Your task to perform on an android device: clear all cookies in the chrome app Image 0: 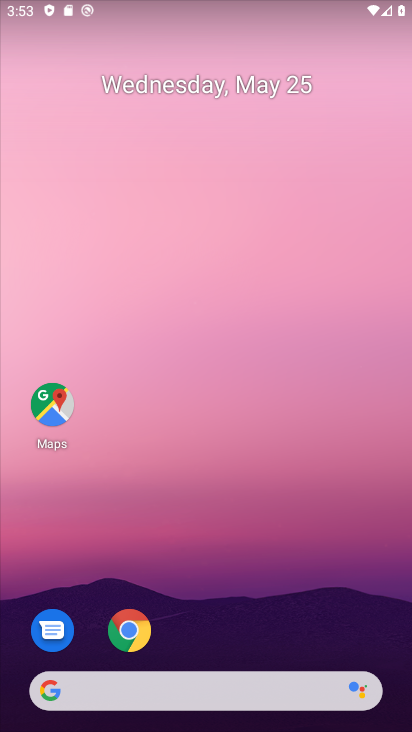
Step 0: drag from (296, 717) to (149, 134)
Your task to perform on an android device: clear all cookies in the chrome app Image 1: 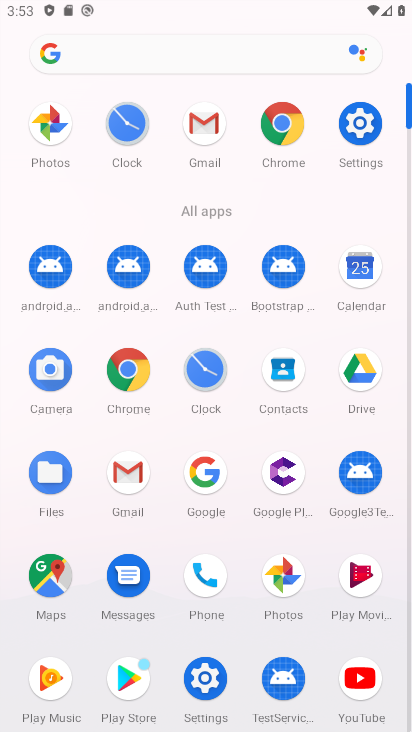
Step 1: click (270, 116)
Your task to perform on an android device: clear all cookies in the chrome app Image 2: 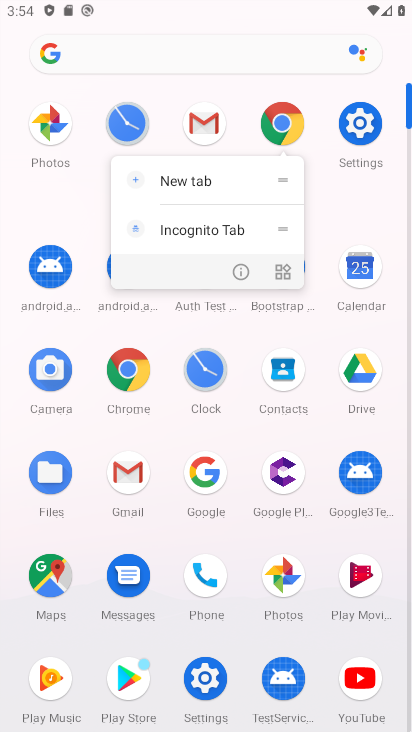
Step 2: click (272, 111)
Your task to perform on an android device: clear all cookies in the chrome app Image 3: 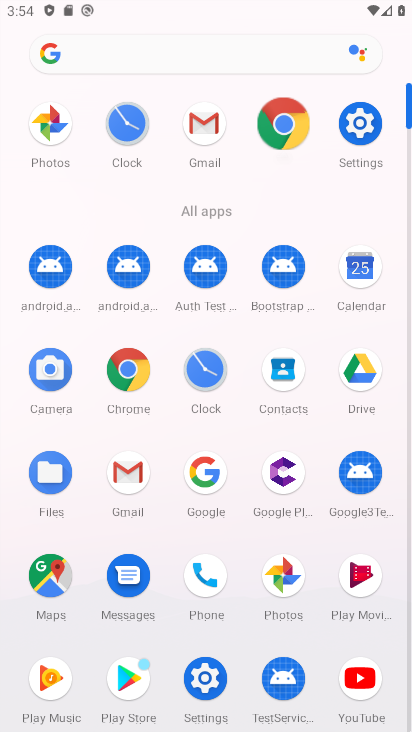
Step 3: click (272, 111)
Your task to perform on an android device: clear all cookies in the chrome app Image 4: 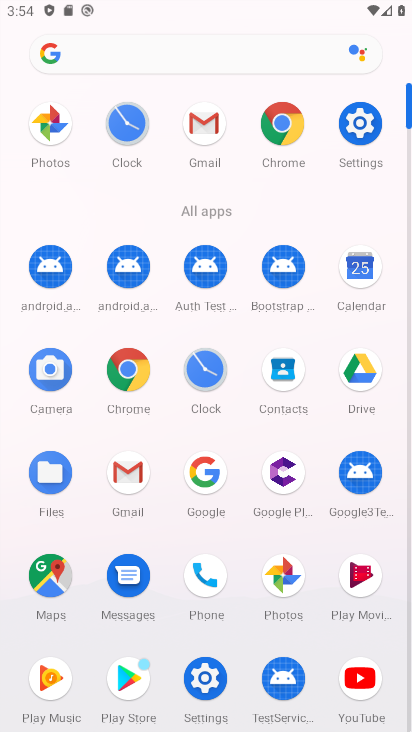
Step 4: click (272, 111)
Your task to perform on an android device: clear all cookies in the chrome app Image 5: 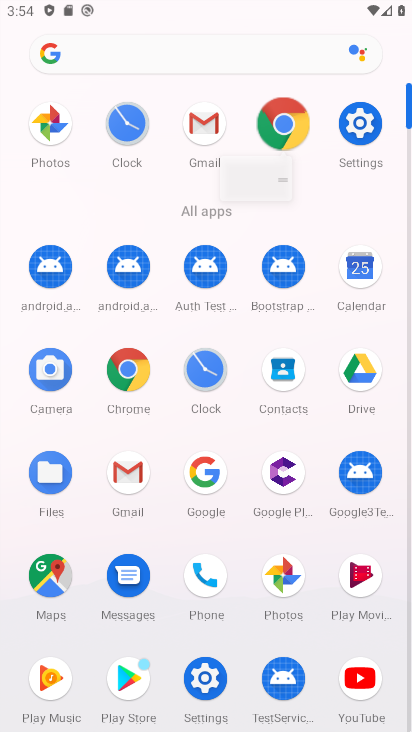
Step 5: click (273, 114)
Your task to perform on an android device: clear all cookies in the chrome app Image 6: 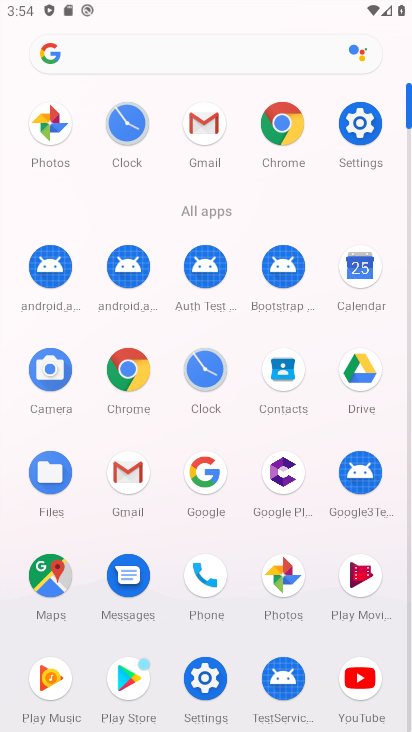
Step 6: click (276, 116)
Your task to perform on an android device: clear all cookies in the chrome app Image 7: 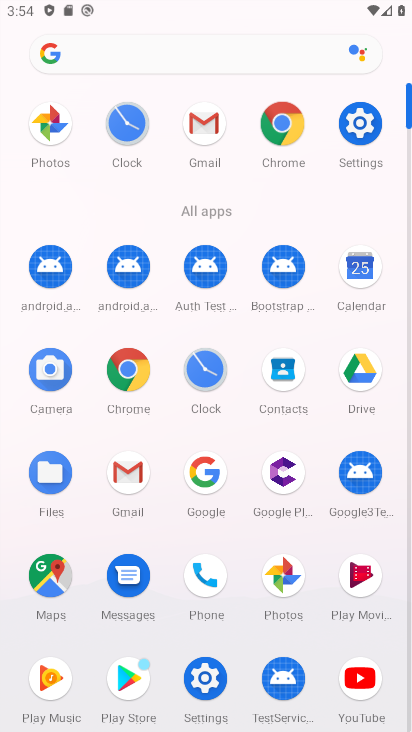
Step 7: click (277, 117)
Your task to perform on an android device: clear all cookies in the chrome app Image 8: 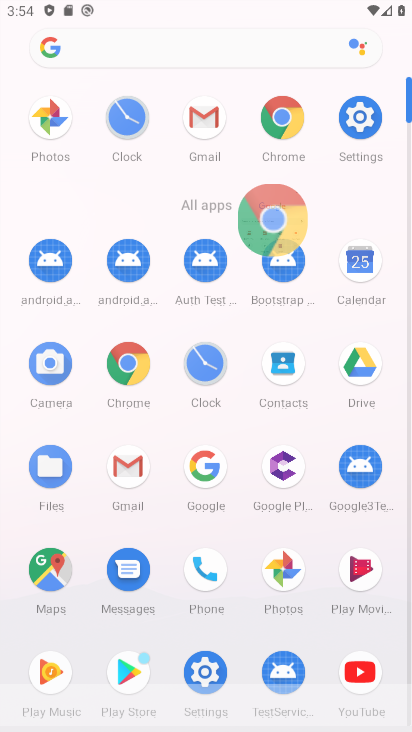
Step 8: click (277, 119)
Your task to perform on an android device: clear all cookies in the chrome app Image 9: 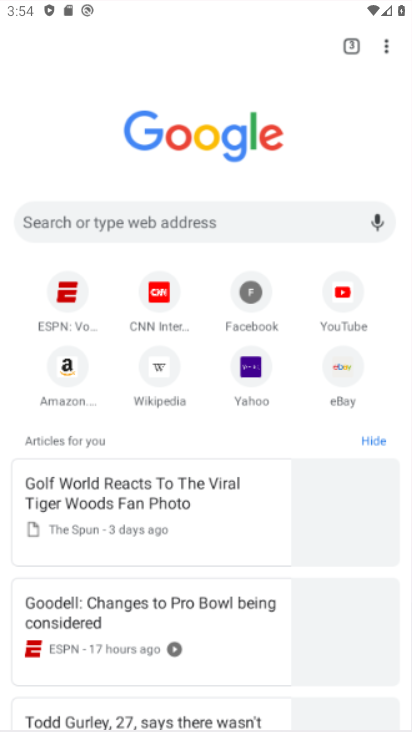
Step 9: click (277, 123)
Your task to perform on an android device: clear all cookies in the chrome app Image 10: 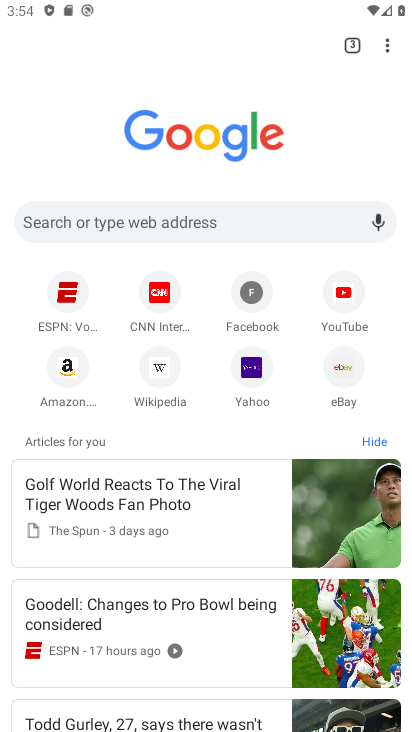
Step 10: press back button
Your task to perform on an android device: clear all cookies in the chrome app Image 11: 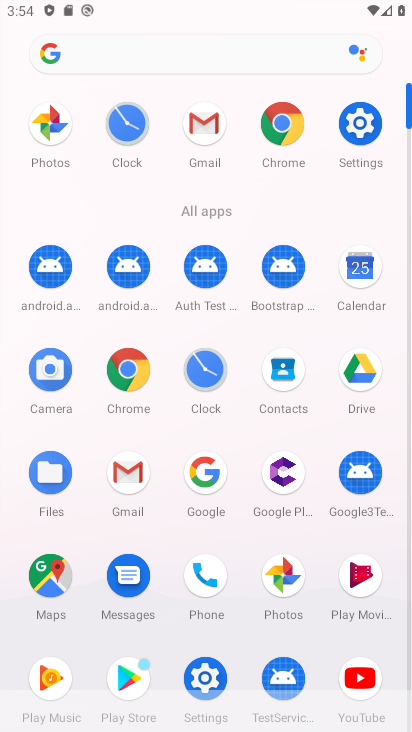
Step 11: click (276, 131)
Your task to perform on an android device: clear all cookies in the chrome app Image 12: 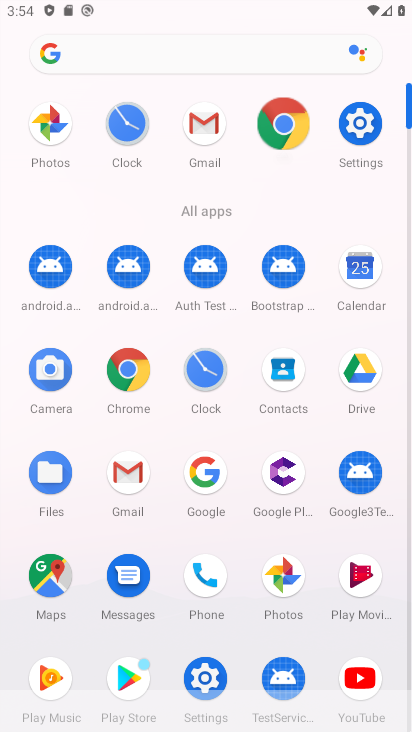
Step 12: click (276, 131)
Your task to perform on an android device: clear all cookies in the chrome app Image 13: 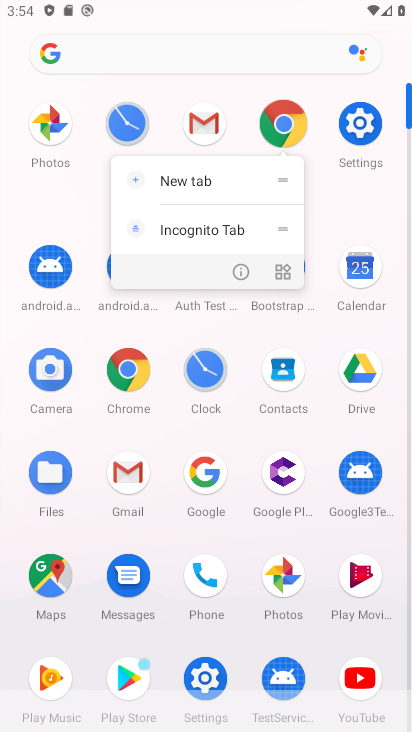
Step 13: click (276, 131)
Your task to perform on an android device: clear all cookies in the chrome app Image 14: 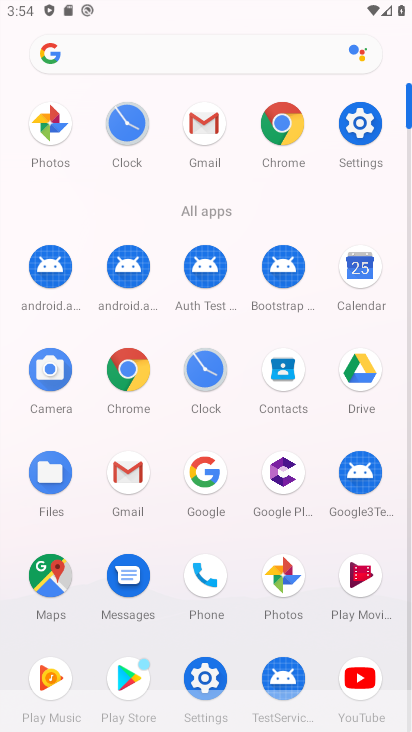
Step 14: click (277, 130)
Your task to perform on an android device: clear all cookies in the chrome app Image 15: 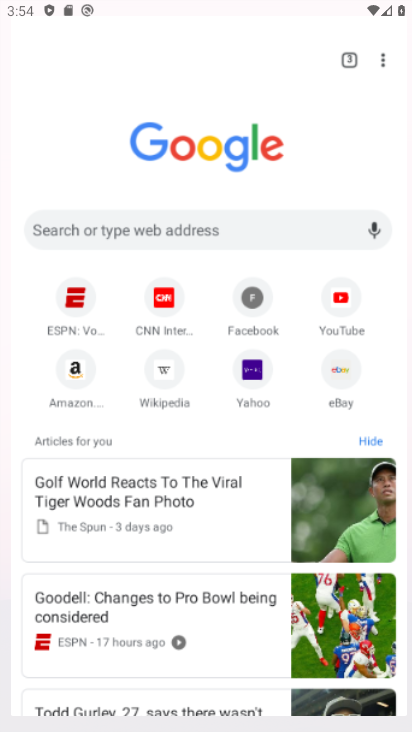
Step 15: click (277, 130)
Your task to perform on an android device: clear all cookies in the chrome app Image 16: 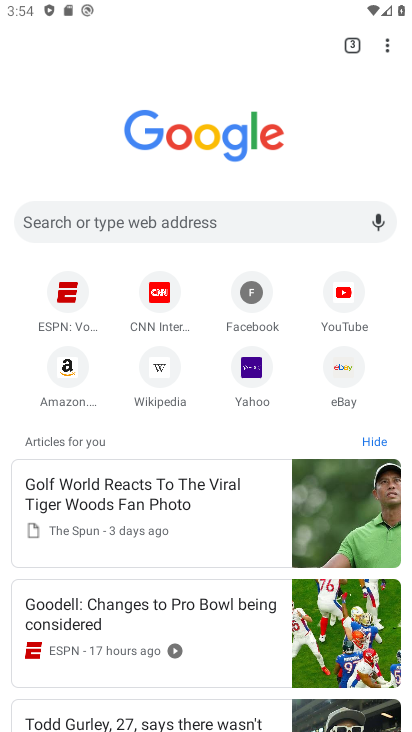
Step 16: drag from (390, 47) to (214, 374)
Your task to perform on an android device: clear all cookies in the chrome app Image 17: 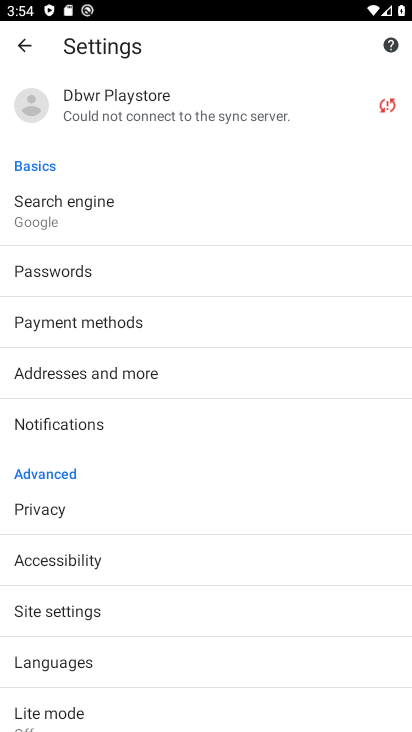
Step 17: click (47, 607)
Your task to perform on an android device: clear all cookies in the chrome app Image 18: 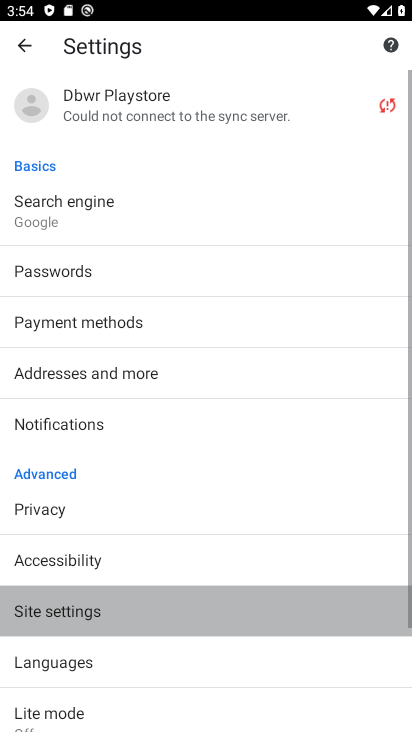
Step 18: click (47, 607)
Your task to perform on an android device: clear all cookies in the chrome app Image 19: 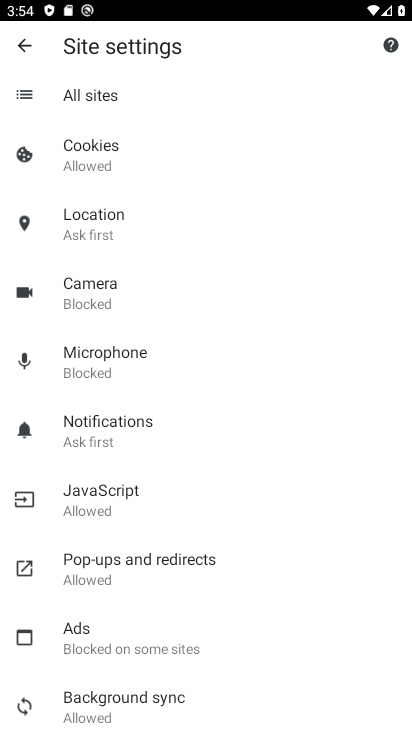
Step 19: click (96, 144)
Your task to perform on an android device: clear all cookies in the chrome app Image 20: 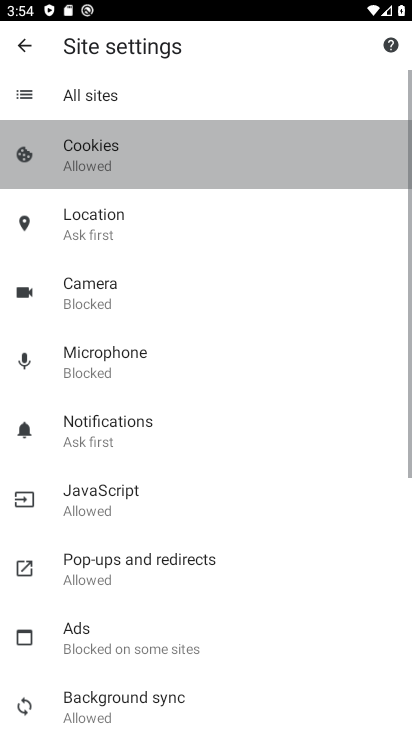
Step 20: click (96, 144)
Your task to perform on an android device: clear all cookies in the chrome app Image 21: 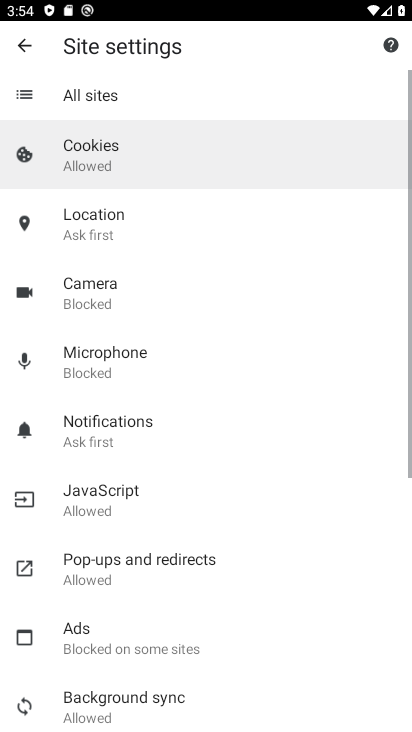
Step 21: click (96, 144)
Your task to perform on an android device: clear all cookies in the chrome app Image 22: 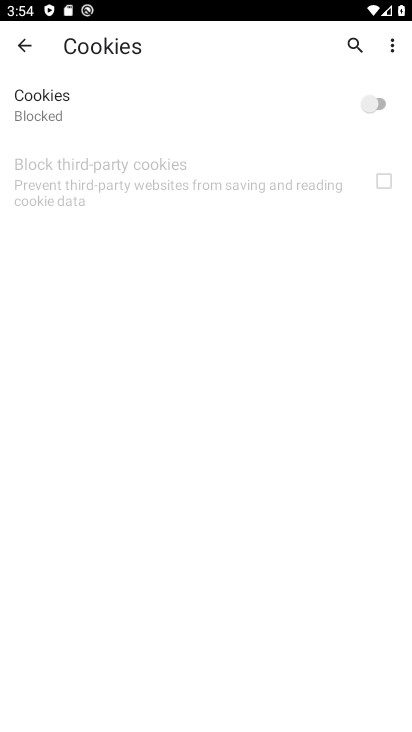
Step 22: task complete